Your task to perform on an android device: turn notification dots on Image 0: 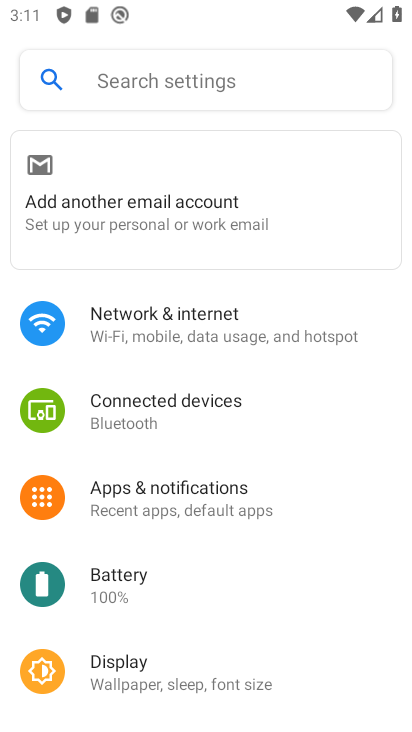
Step 0: press home button
Your task to perform on an android device: turn notification dots on Image 1: 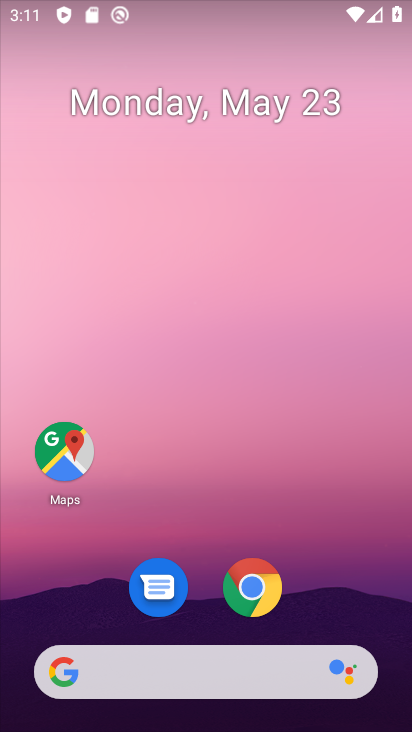
Step 1: drag from (201, 666) to (363, 28)
Your task to perform on an android device: turn notification dots on Image 2: 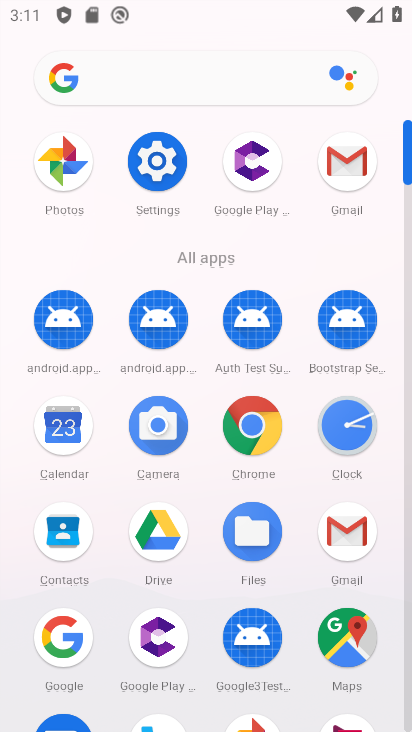
Step 2: click (154, 173)
Your task to perform on an android device: turn notification dots on Image 3: 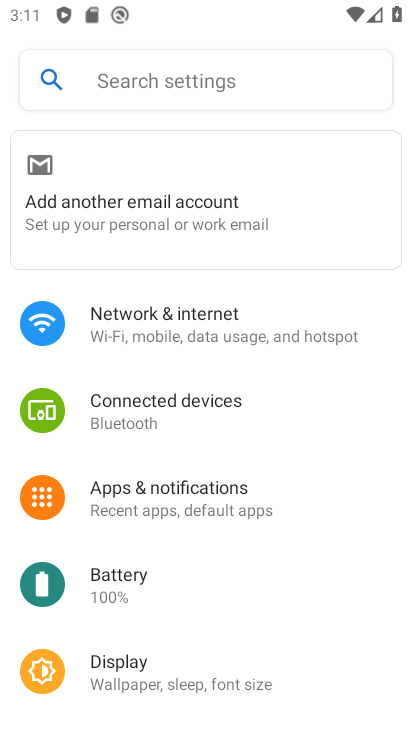
Step 3: click (193, 489)
Your task to perform on an android device: turn notification dots on Image 4: 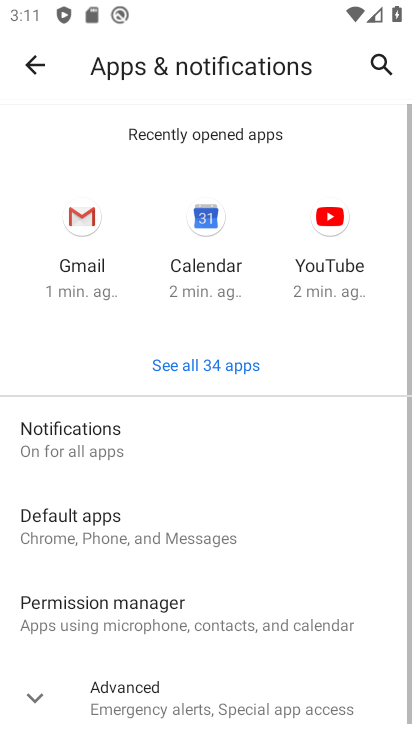
Step 4: click (106, 451)
Your task to perform on an android device: turn notification dots on Image 5: 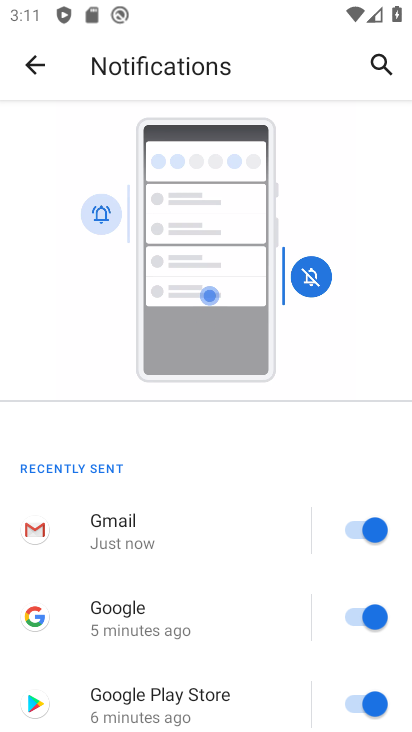
Step 5: drag from (242, 649) to (404, 32)
Your task to perform on an android device: turn notification dots on Image 6: 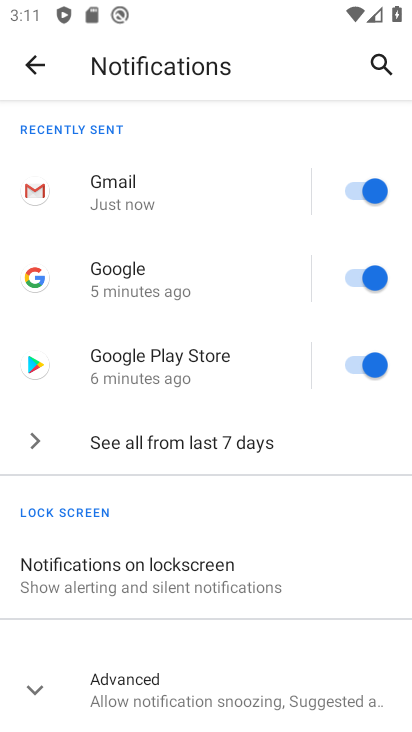
Step 6: click (165, 694)
Your task to perform on an android device: turn notification dots on Image 7: 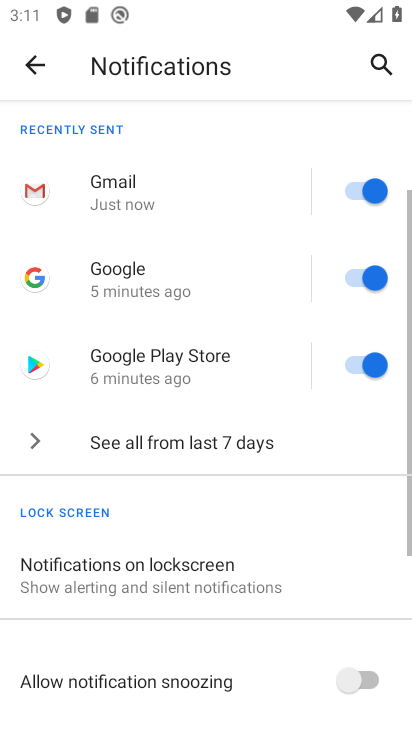
Step 7: task complete